Your task to perform on an android device: check battery use Image 0: 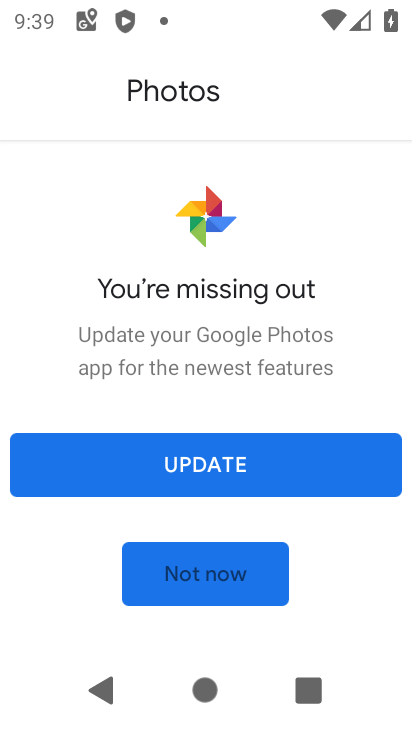
Step 0: press home button
Your task to perform on an android device: check battery use Image 1: 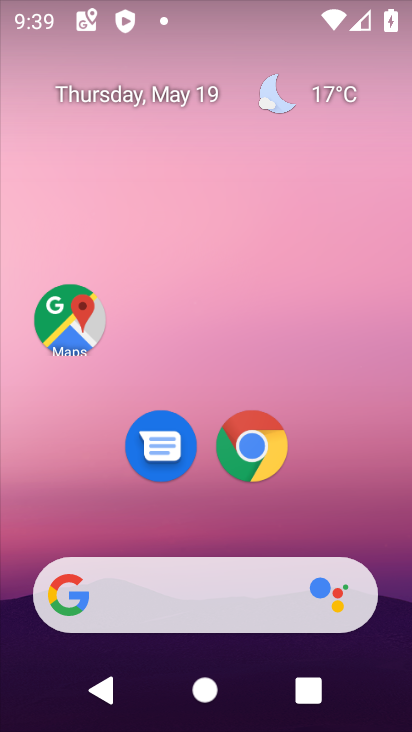
Step 1: drag from (218, 547) to (239, 1)
Your task to perform on an android device: check battery use Image 2: 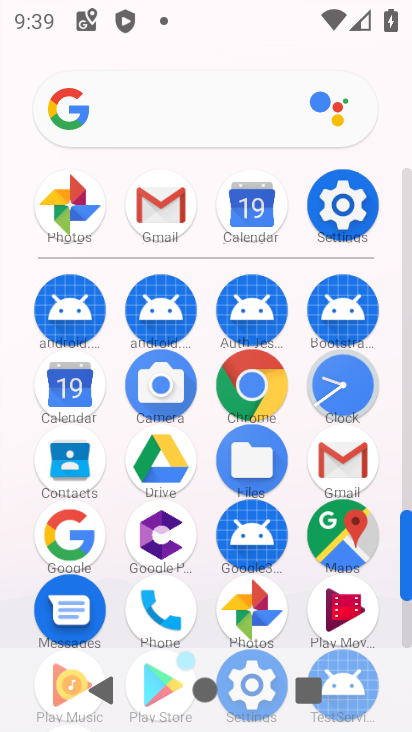
Step 2: click (358, 223)
Your task to perform on an android device: check battery use Image 3: 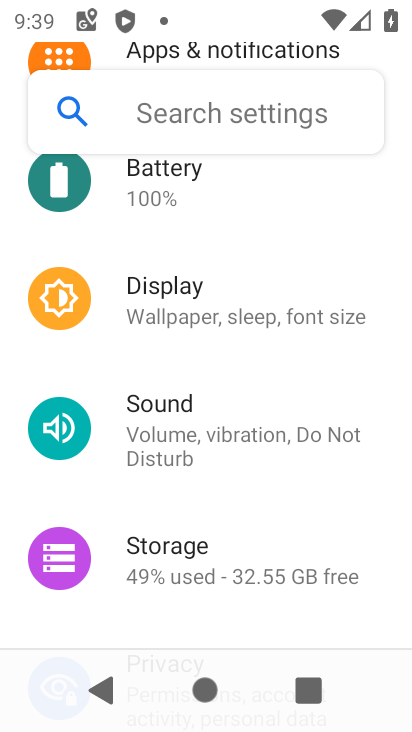
Step 3: click (205, 200)
Your task to perform on an android device: check battery use Image 4: 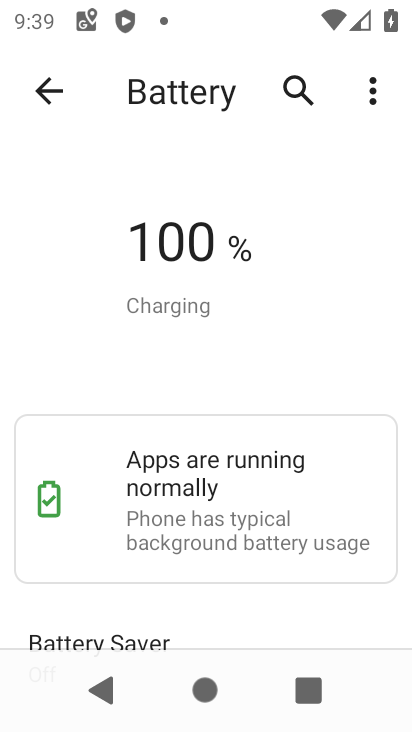
Step 4: click (368, 86)
Your task to perform on an android device: check battery use Image 5: 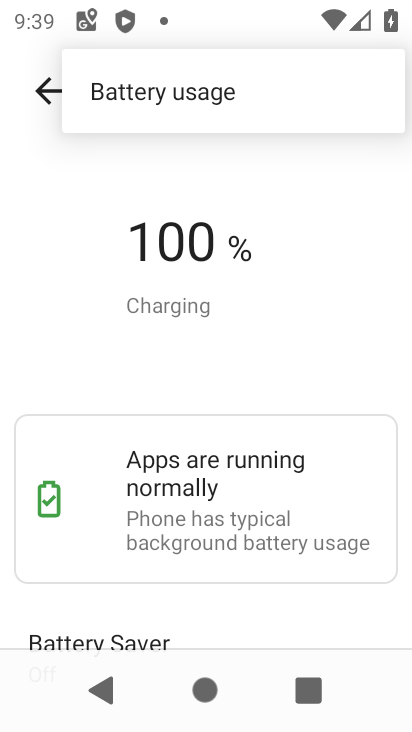
Step 5: click (244, 95)
Your task to perform on an android device: check battery use Image 6: 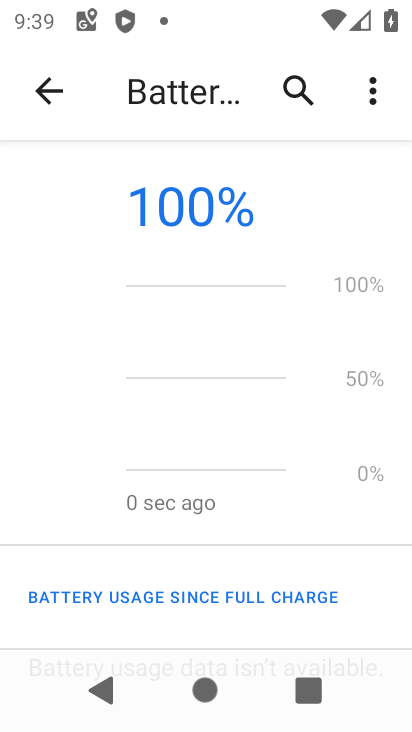
Step 6: task complete